Your task to perform on an android device: Open Reddit.com Image 0: 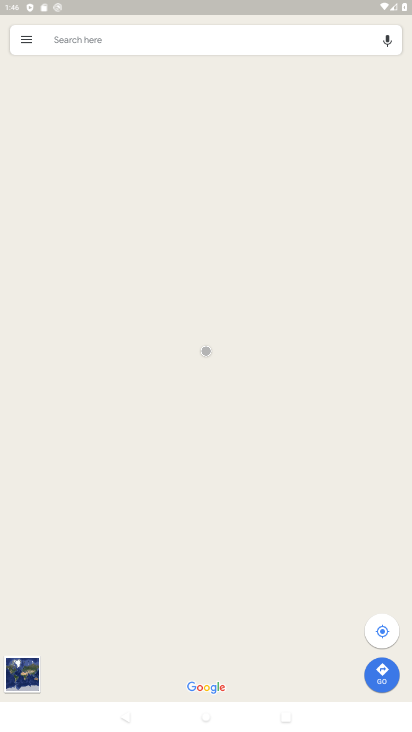
Step 0: press home button
Your task to perform on an android device: Open Reddit.com Image 1: 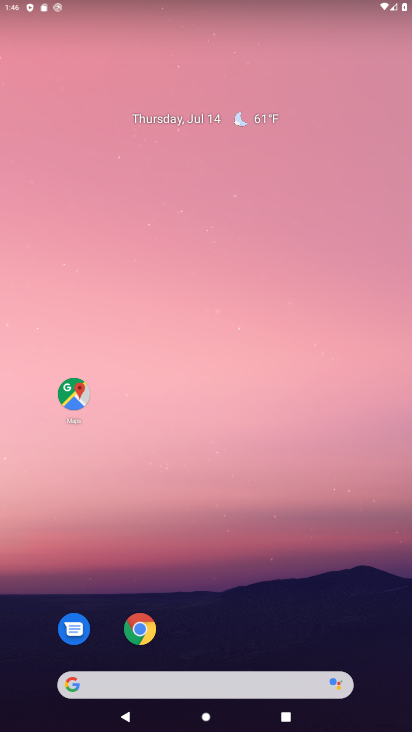
Step 1: click (140, 632)
Your task to perform on an android device: Open Reddit.com Image 2: 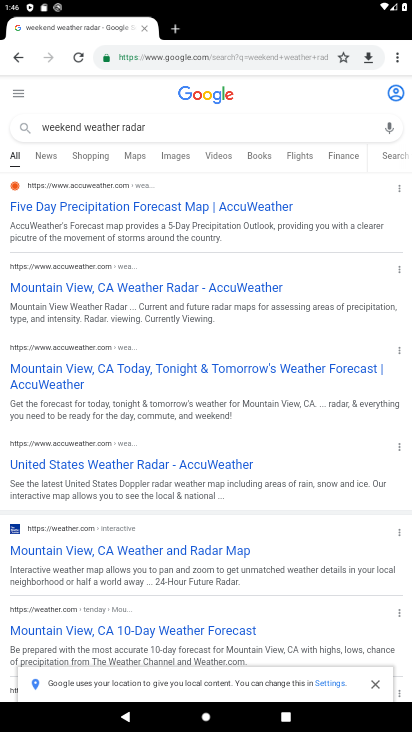
Step 2: click (397, 52)
Your task to perform on an android device: Open Reddit.com Image 3: 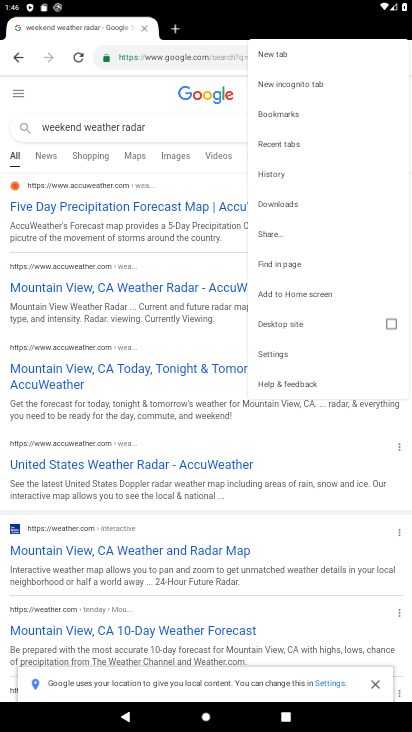
Step 3: click (181, 166)
Your task to perform on an android device: Open Reddit.com Image 4: 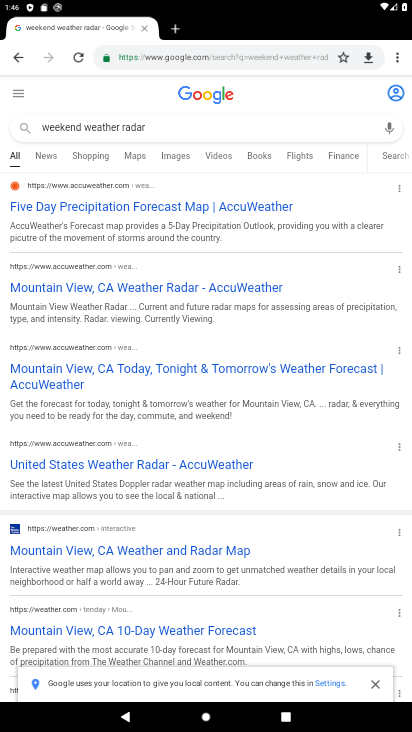
Step 4: click (174, 57)
Your task to perform on an android device: Open Reddit.com Image 5: 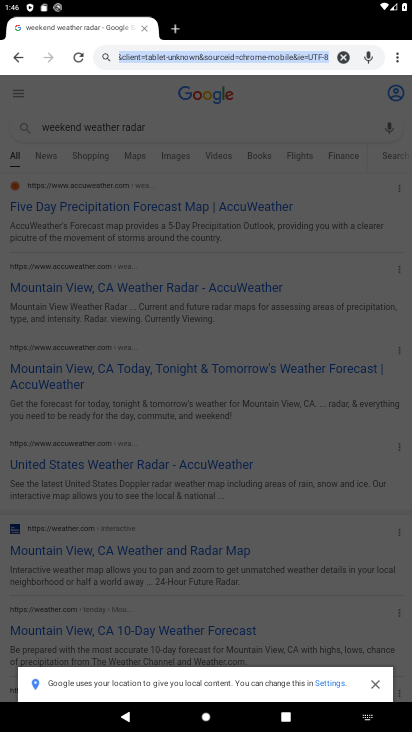
Step 5: click (348, 59)
Your task to perform on an android device: Open Reddit.com Image 6: 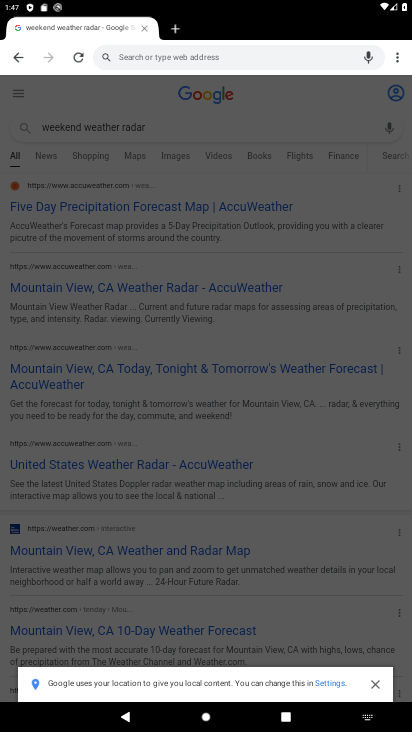
Step 6: type "reddit"
Your task to perform on an android device: Open Reddit.com Image 7: 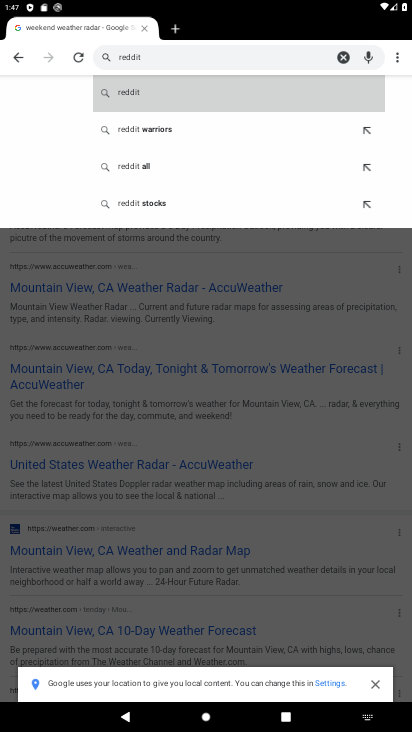
Step 7: click (164, 95)
Your task to perform on an android device: Open Reddit.com Image 8: 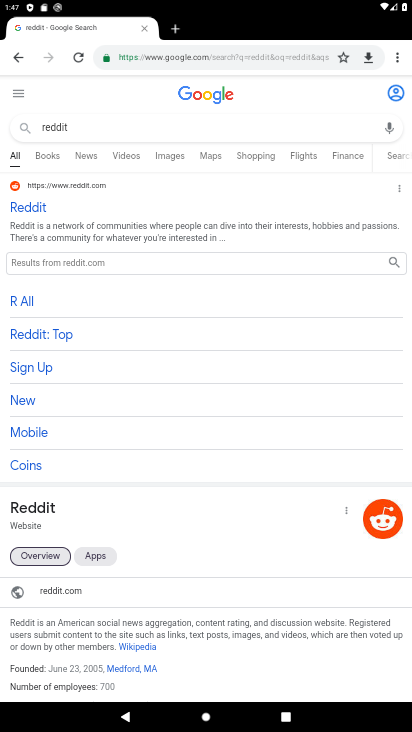
Step 8: click (44, 207)
Your task to perform on an android device: Open Reddit.com Image 9: 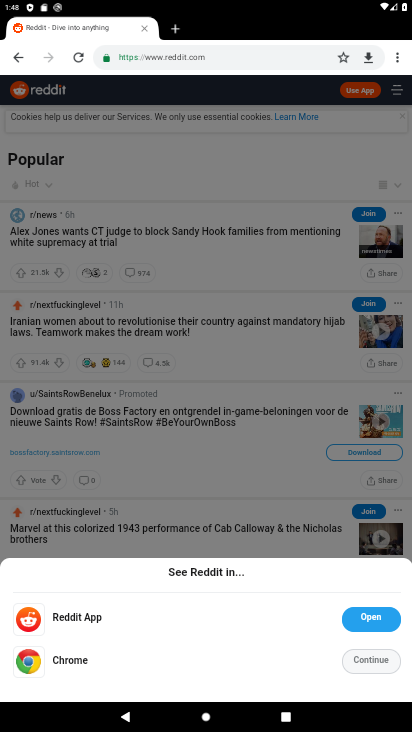
Step 9: click (361, 620)
Your task to perform on an android device: Open Reddit.com Image 10: 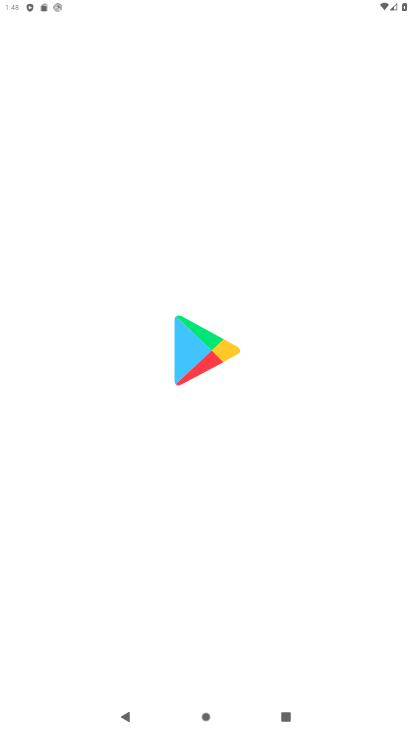
Step 10: task complete